Your task to perform on an android device: empty trash in google photos Image 0: 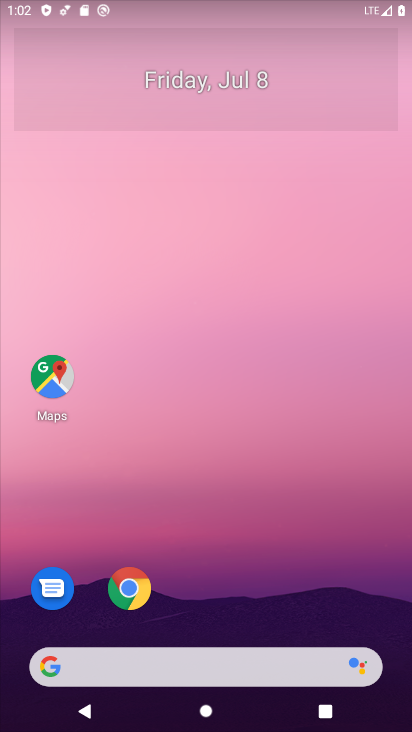
Step 0: drag from (184, 553) to (208, 5)
Your task to perform on an android device: empty trash in google photos Image 1: 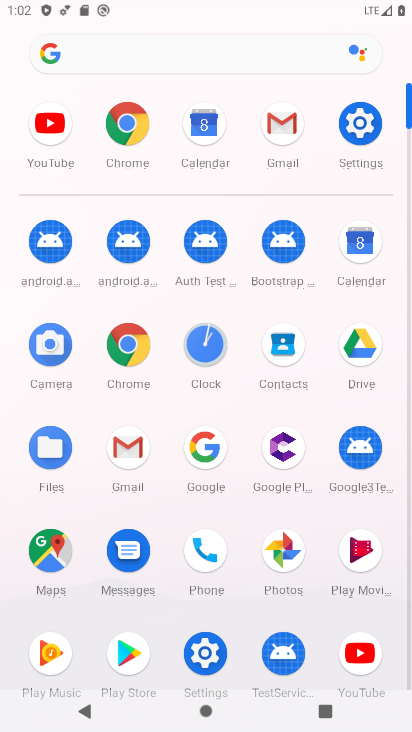
Step 1: click (279, 548)
Your task to perform on an android device: empty trash in google photos Image 2: 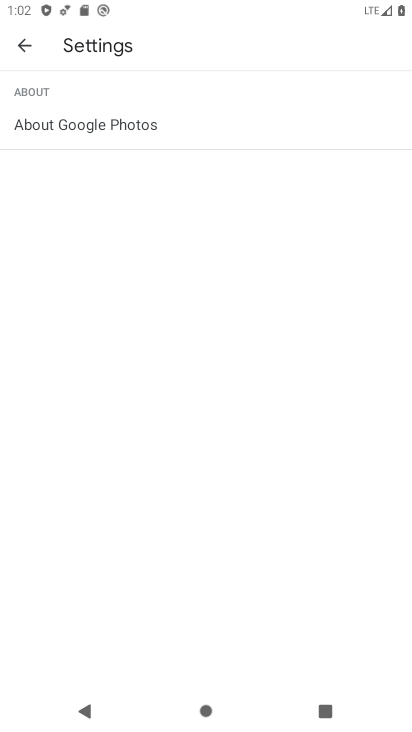
Step 2: click (25, 43)
Your task to perform on an android device: empty trash in google photos Image 3: 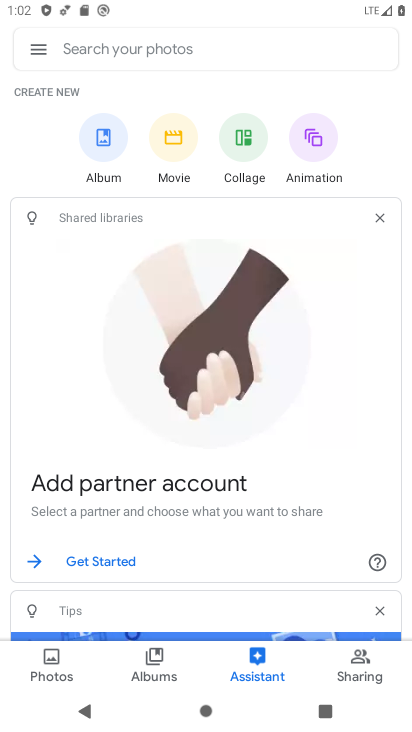
Step 3: click (31, 42)
Your task to perform on an android device: empty trash in google photos Image 4: 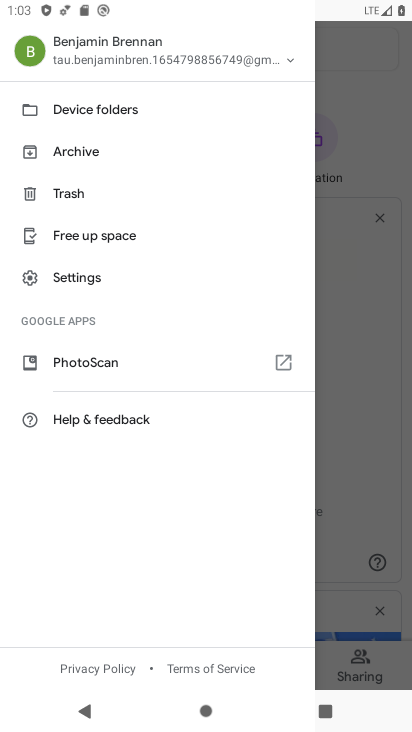
Step 4: click (87, 196)
Your task to perform on an android device: empty trash in google photos Image 5: 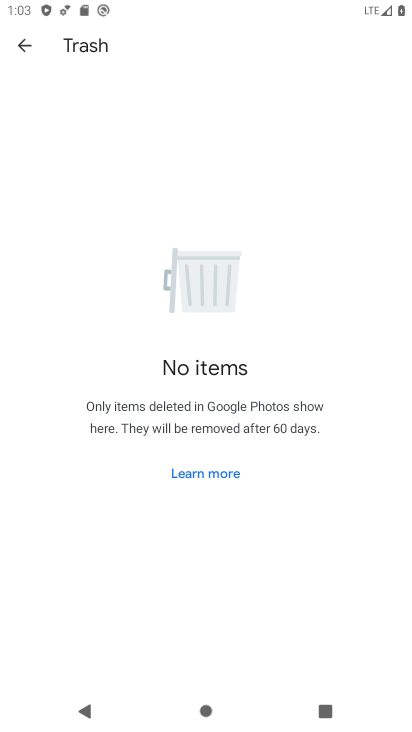
Step 5: task complete